Your task to perform on an android device: turn on sleep mode Image 0: 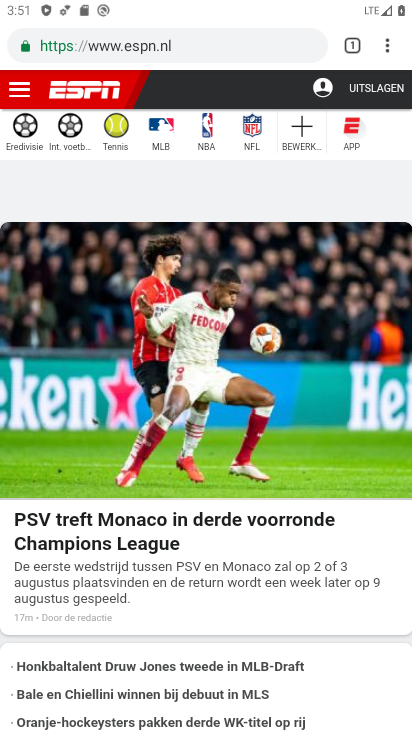
Step 0: press home button
Your task to perform on an android device: turn on sleep mode Image 1: 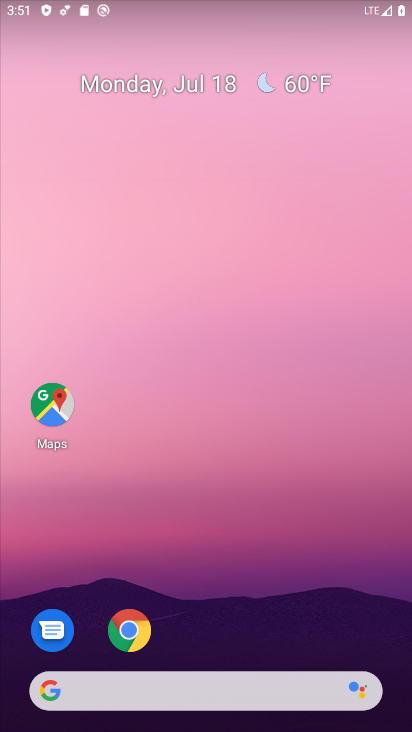
Step 1: click (374, 158)
Your task to perform on an android device: turn on sleep mode Image 2: 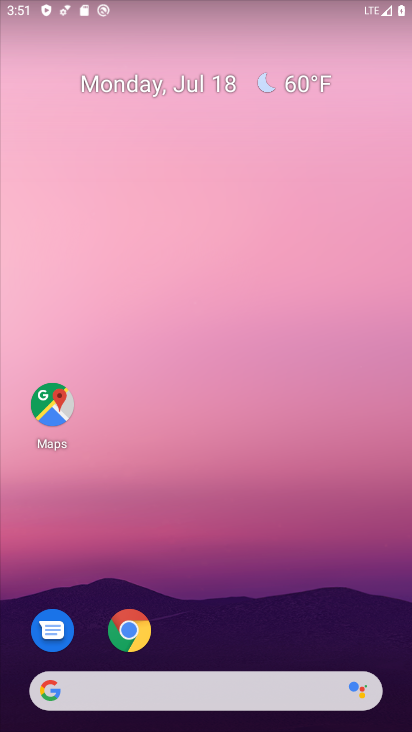
Step 2: task complete